Your task to perform on an android device: refresh tabs in the chrome app Image 0: 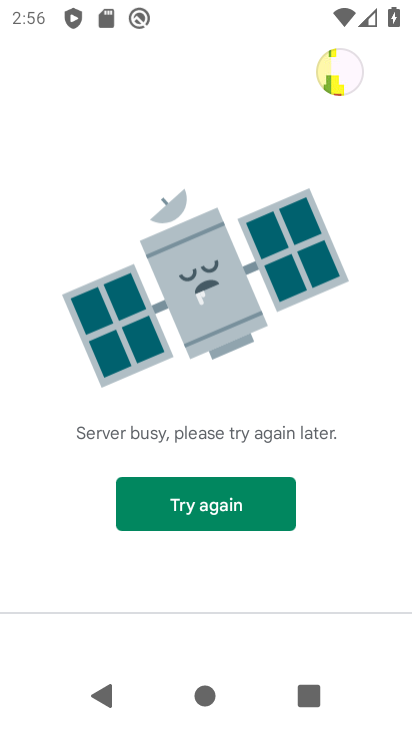
Step 0: press home button
Your task to perform on an android device: refresh tabs in the chrome app Image 1: 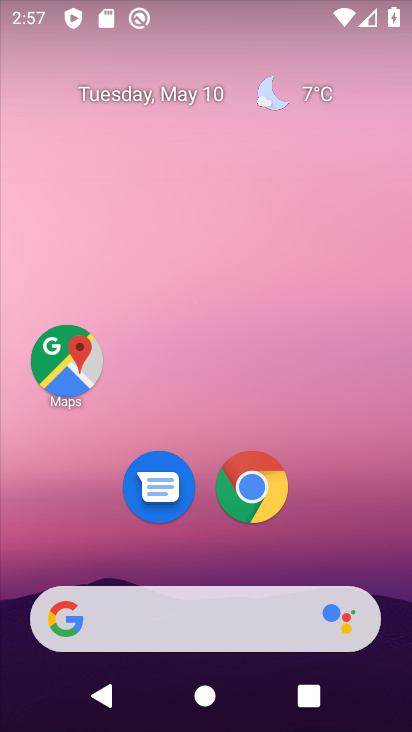
Step 1: click (256, 483)
Your task to perform on an android device: refresh tabs in the chrome app Image 2: 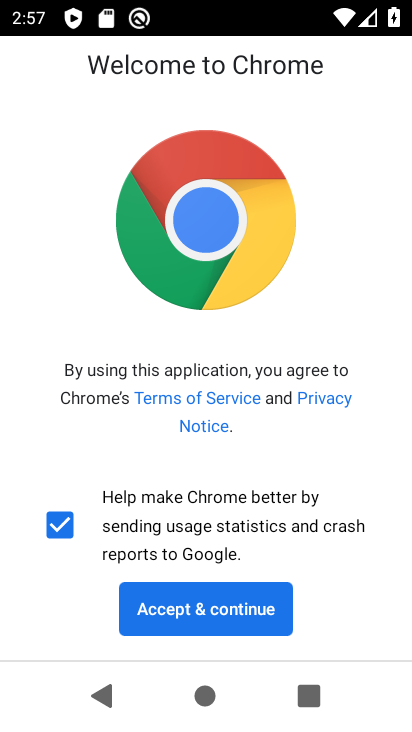
Step 2: click (227, 609)
Your task to perform on an android device: refresh tabs in the chrome app Image 3: 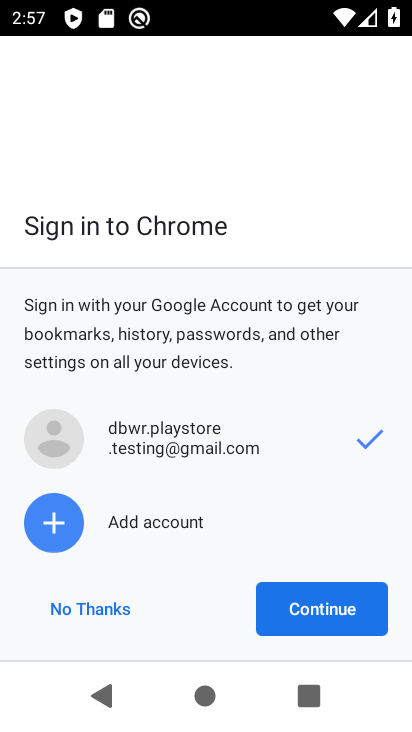
Step 3: click (290, 617)
Your task to perform on an android device: refresh tabs in the chrome app Image 4: 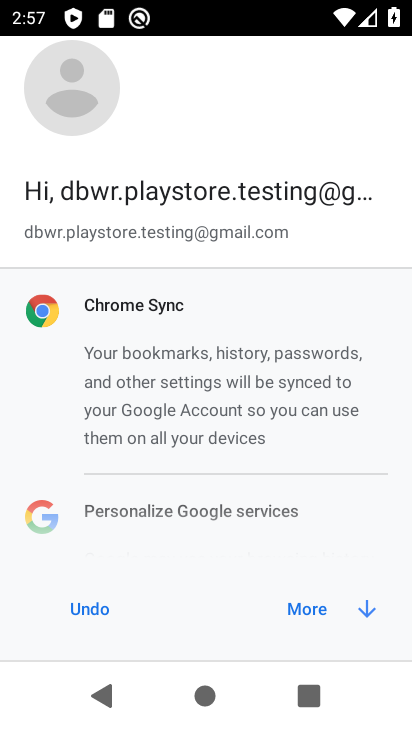
Step 4: click (321, 613)
Your task to perform on an android device: refresh tabs in the chrome app Image 5: 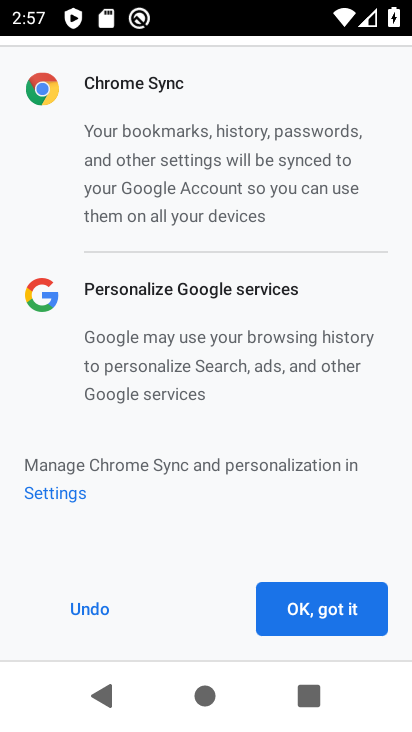
Step 5: click (321, 613)
Your task to perform on an android device: refresh tabs in the chrome app Image 6: 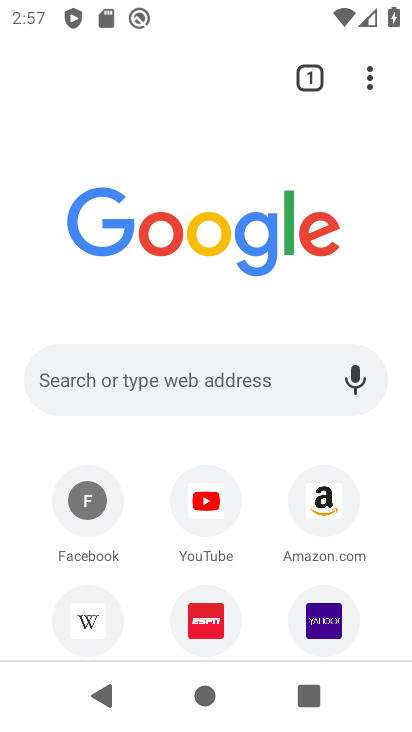
Step 6: click (362, 88)
Your task to perform on an android device: refresh tabs in the chrome app Image 7: 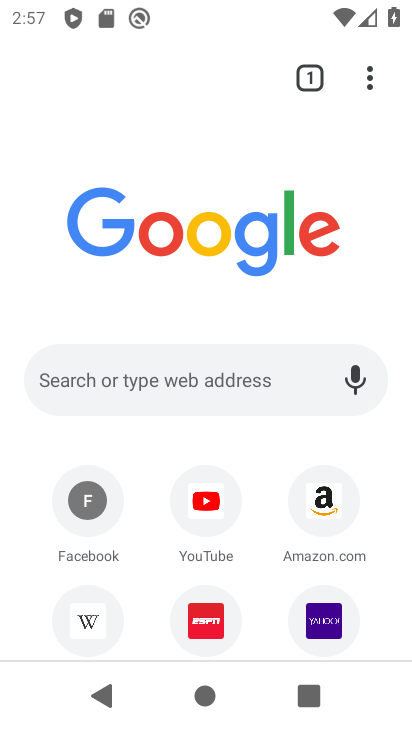
Step 7: click (370, 74)
Your task to perform on an android device: refresh tabs in the chrome app Image 8: 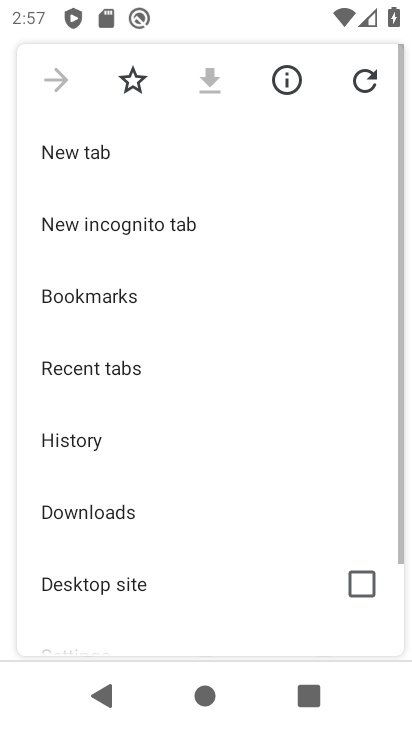
Step 8: click (366, 85)
Your task to perform on an android device: refresh tabs in the chrome app Image 9: 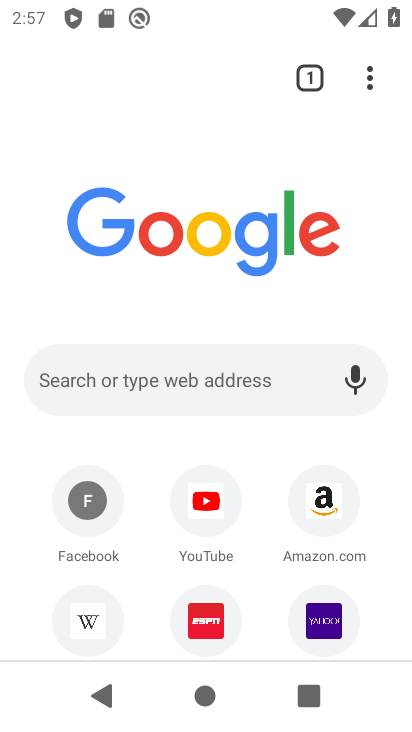
Step 9: task complete